Your task to perform on an android device: Open the calendar and show me this week's events? Image 0: 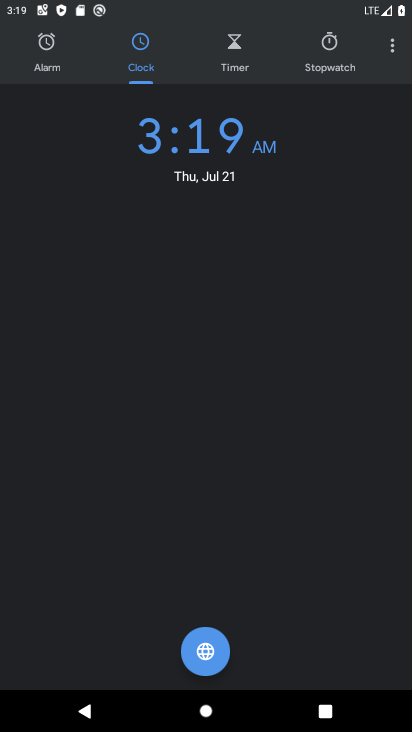
Step 0: press home button
Your task to perform on an android device: Open the calendar and show me this week's events? Image 1: 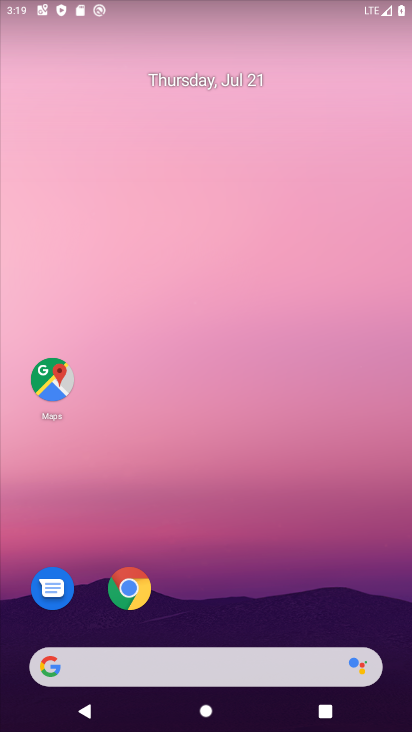
Step 1: drag from (304, 628) to (339, 222)
Your task to perform on an android device: Open the calendar and show me this week's events? Image 2: 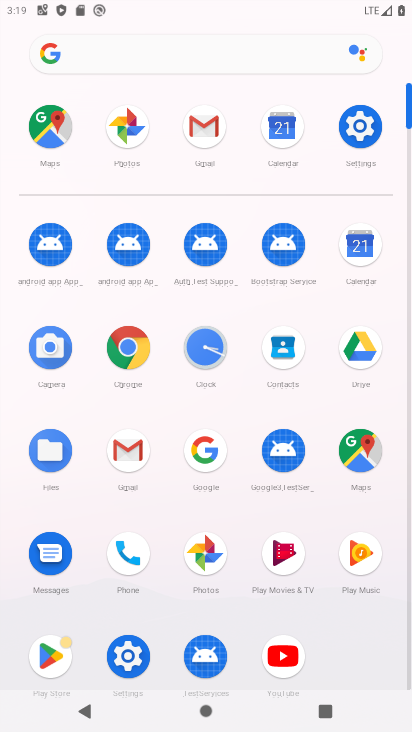
Step 2: click (365, 253)
Your task to perform on an android device: Open the calendar and show me this week's events? Image 3: 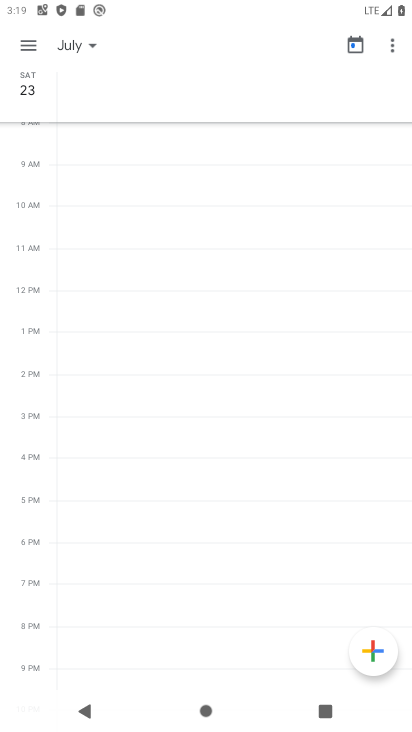
Step 3: click (31, 43)
Your task to perform on an android device: Open the calendar and show me this week's events? Image 4: 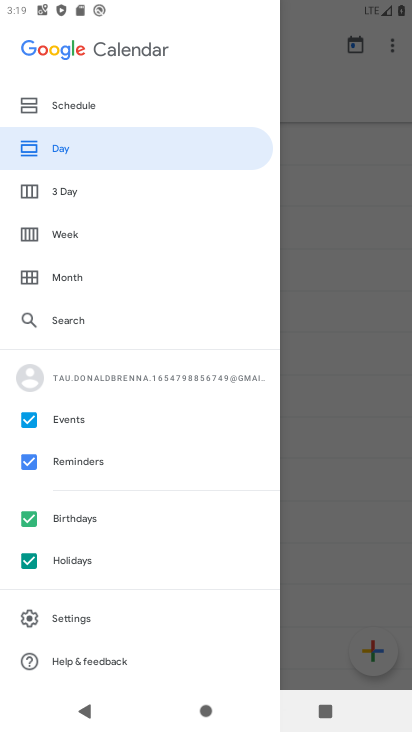
Step 4: click (47, 97)
Your task to perform on an android device: Open the calendar and show me this week's events? Image 5: 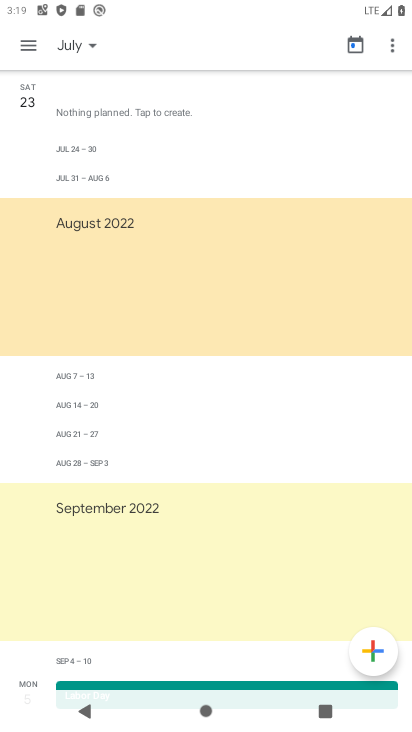
Step 5: click (72, 45)
Your task to perform on an android device: Open the calendar and show me this week's events? Image 6: 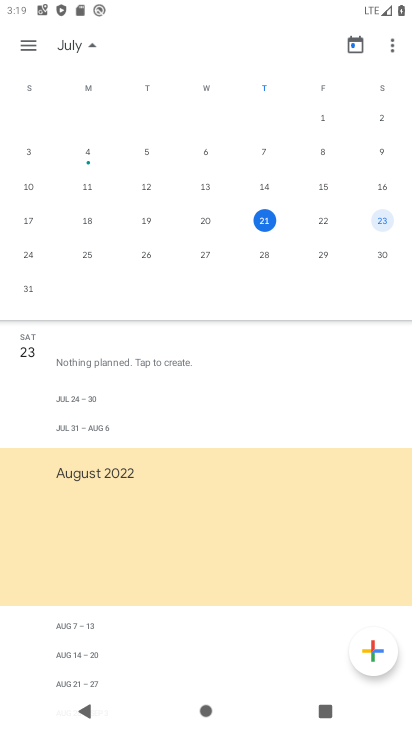
Step 6: click (264, 217)
Your task to perform on an android device: Open the calendar and show me this week's events? Image 7: 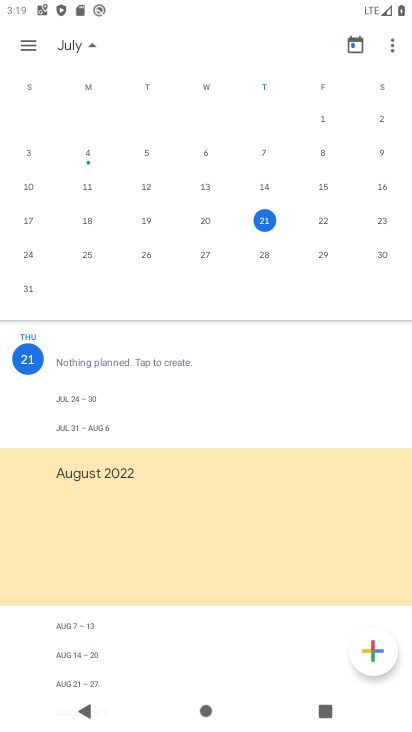
Step 7: click (324, 221)
Your task to perform on an android device: Open the calendar and show me this week's events? Image 8: 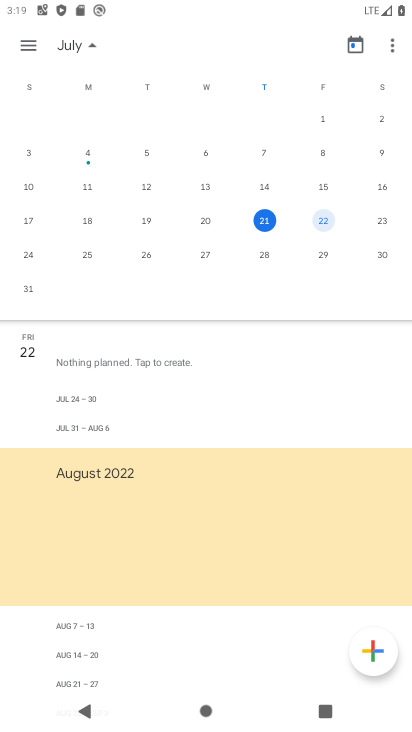
Step 8: click (373, 221)
Your task to perform on an android device: Open the calendar and show me this week's events? Image 9: 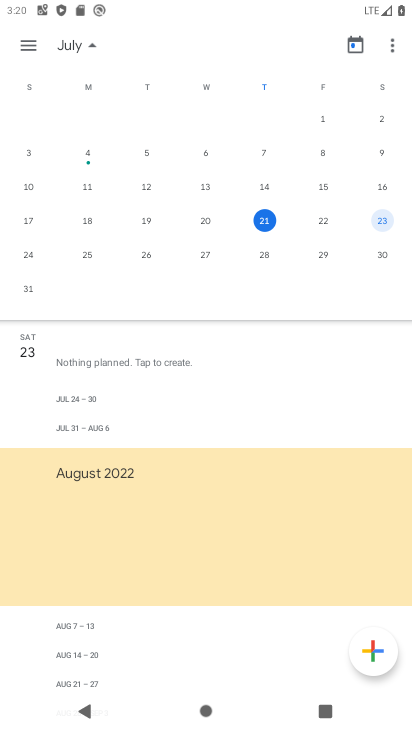
Step 9: task complete